Your task to perform on an android device: Turn off the flashlight Image 0: 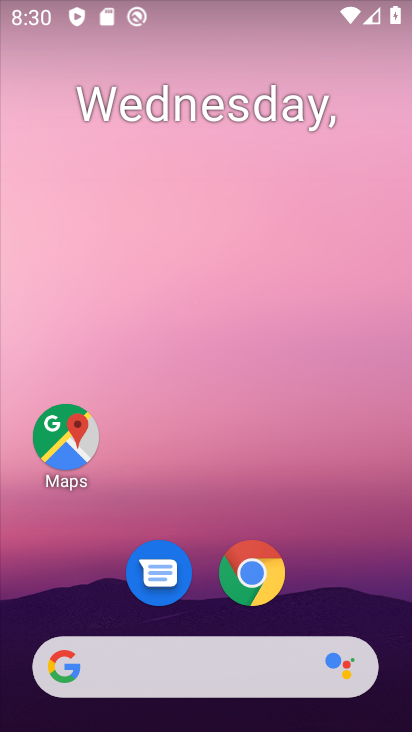
Step 0: drag from (264, 648) to (287, 166)
Your task to perform on an android device: Turn off the flashlight Image 1: 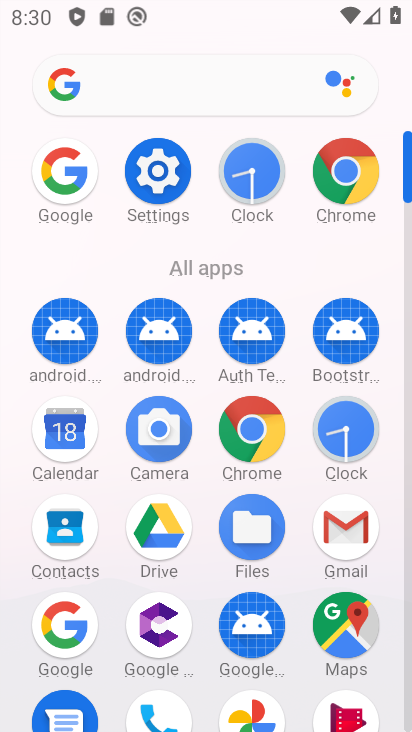
Step 1: task complete